Your task to perform on an android device: What's on my calendar today? Image 0: 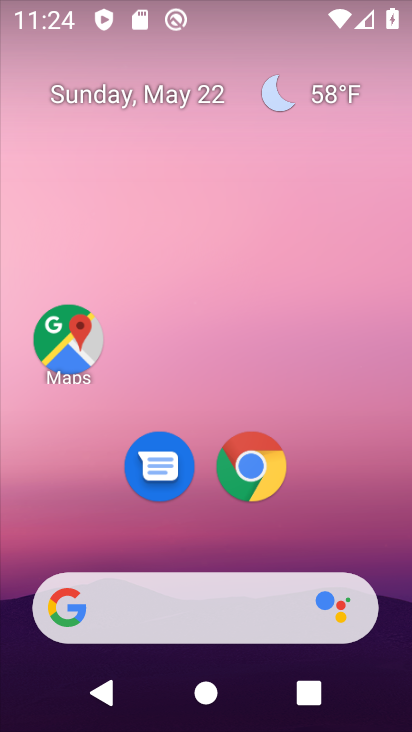
Step 0: drag from (222, 504) to (191, 66)
Your task to perform on an android device: What's on my calendar today? Image 1: 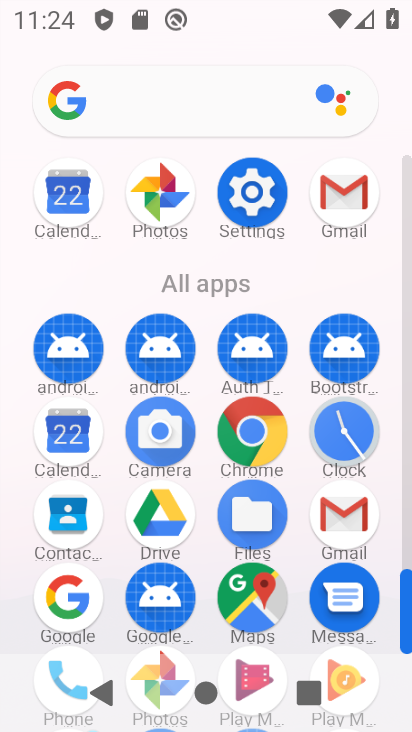
Step 1: click (76, 445)
Your task to perform on an android device: What's on my calendar today? Image 2: 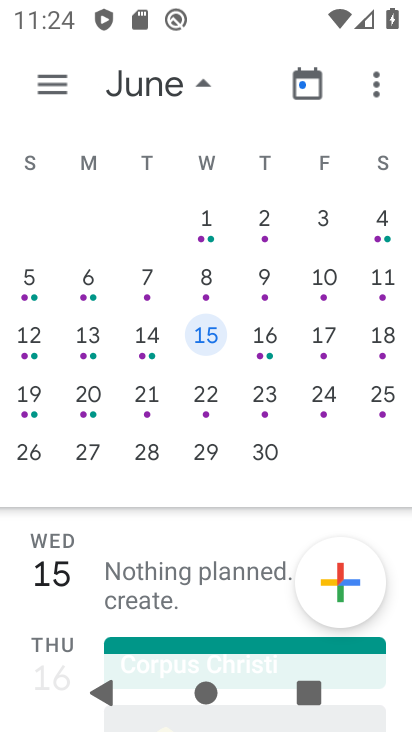
Step 2: drag from (72, 451) to (386, 428)
Your task to perform on an android device: What's on my calendar today? Image 3: 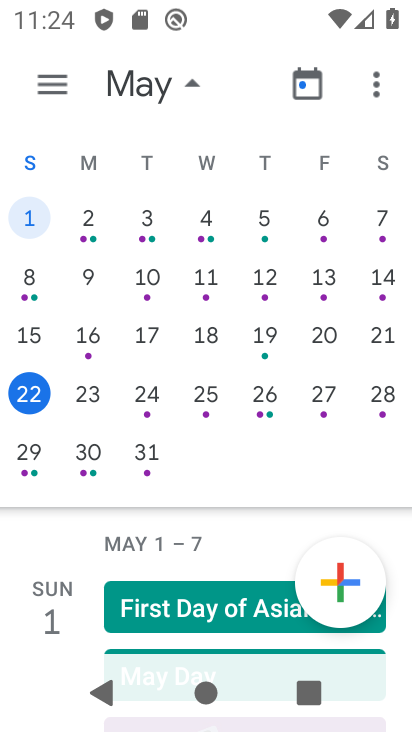
Step 3: click (39, 403)
Your task to perform on an android device: What's on my calendar today? Image 4: 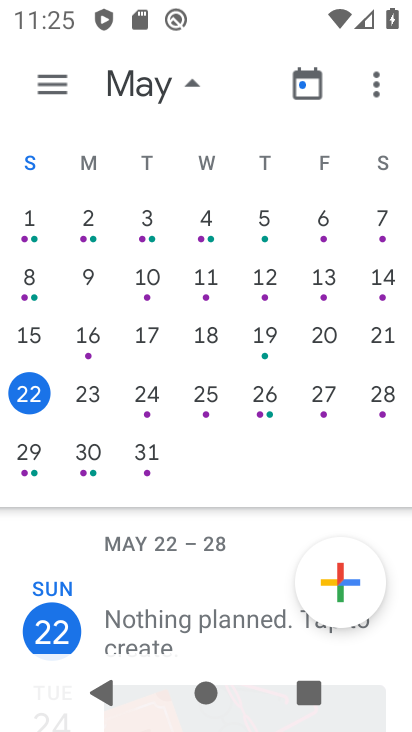
Step 4: task complete